Your task to perform on an android device: Open Reddit.com Image 0: 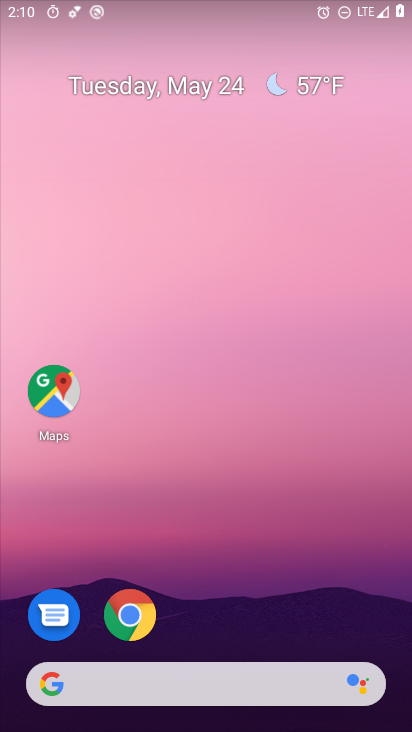
Step 0: drag from (150, 657) to (150, 170)
Your task to perform on an android device: Open Reddit.com Image 1: 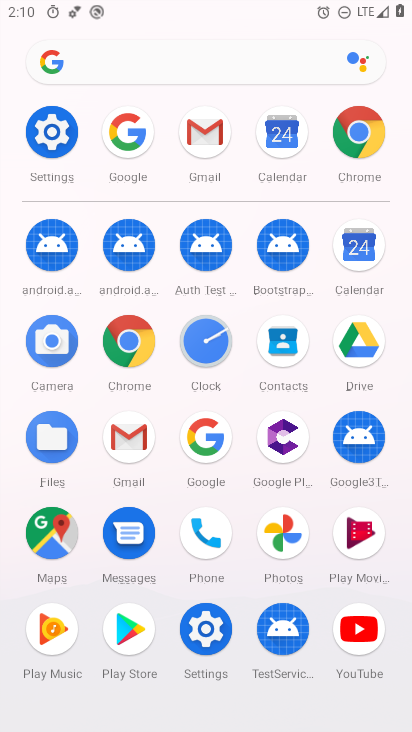
Step 1: click (212, 440)
Your task to perform on an android device: Open Reddit.com Image 2: 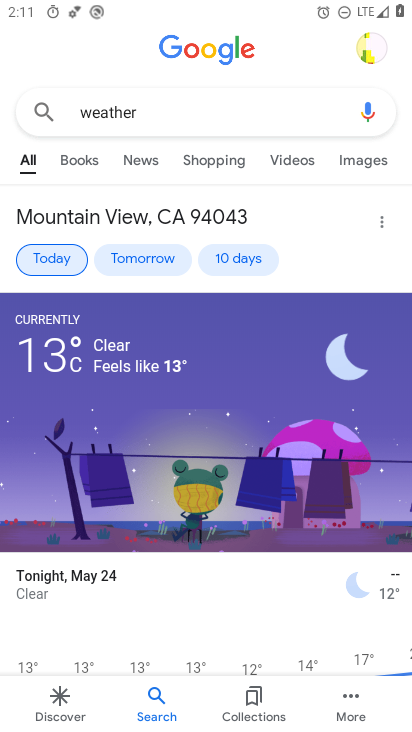
Step 2: click (159, 120)
Your task to perform on an android device: Open Reddit.com Image 3: 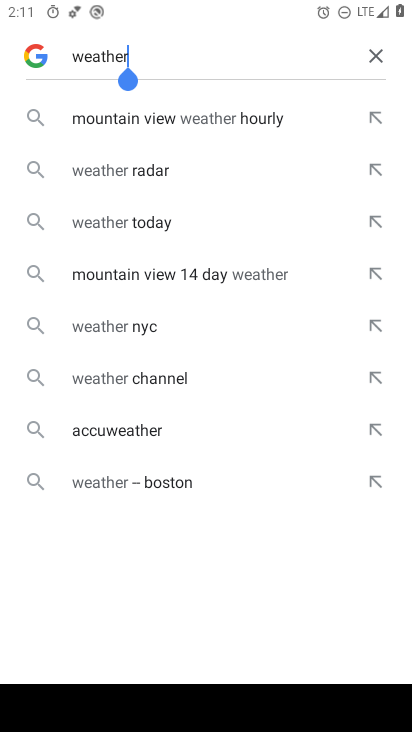
Step 3: click (370, 58)
Your task to perform on an android device: Open Reddit.com Image 4: 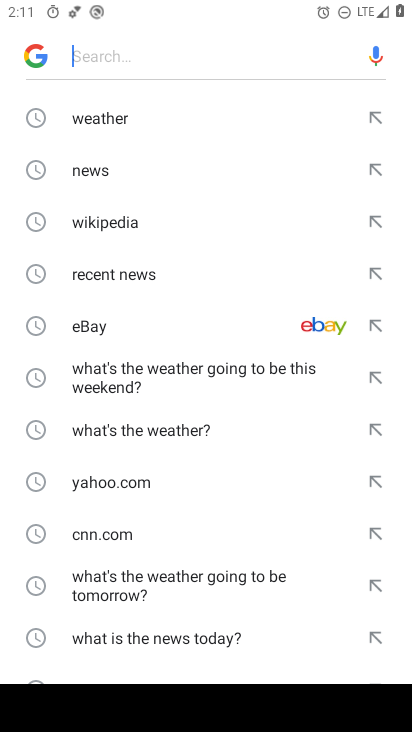
Step 4: drag from (112, 578) to (128, 214)
Your task to perform on an android device: Open Reddit.com Image 5: 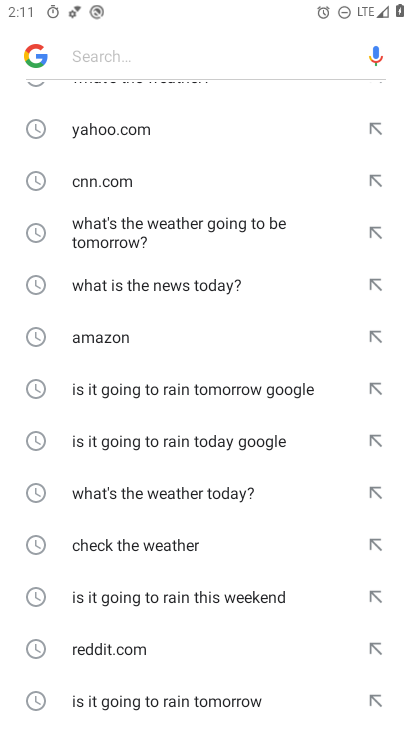
Step 5: drag from (129, 563) to (134, 271)
Your task to perform on an android device: Open Reddit.com Image 6: 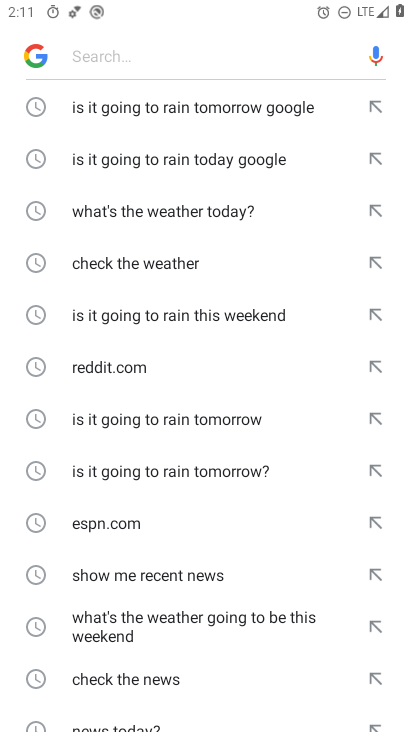
Step 6: click (117, 356)
Your task to perform on an android device: Open Reddit.com Image 7: 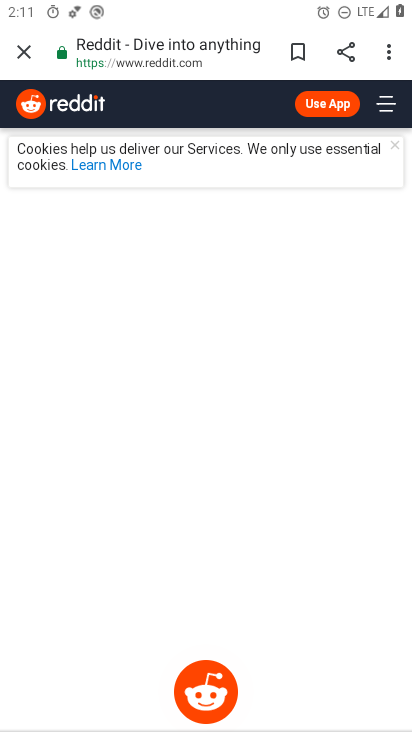
Step 7: task complete